Your task to perform on an android device: Open Google Chrome and click the shortcut for Amazon.com Image 0: 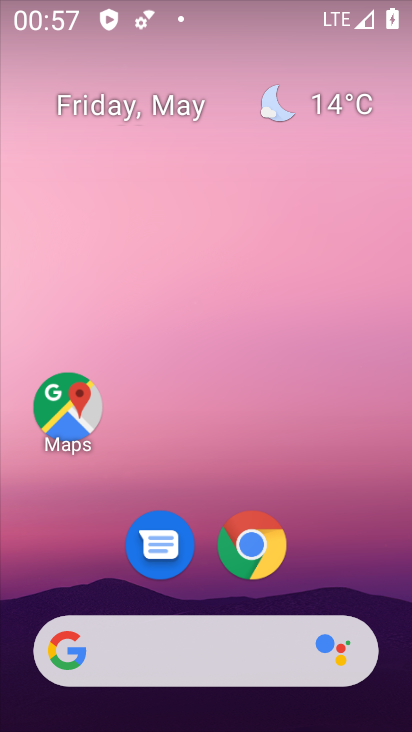
Step 0: click (251, 549)
Your task to perform on an android device: Open Google Chrome and click the shortcut for Amazon.com Image 1: 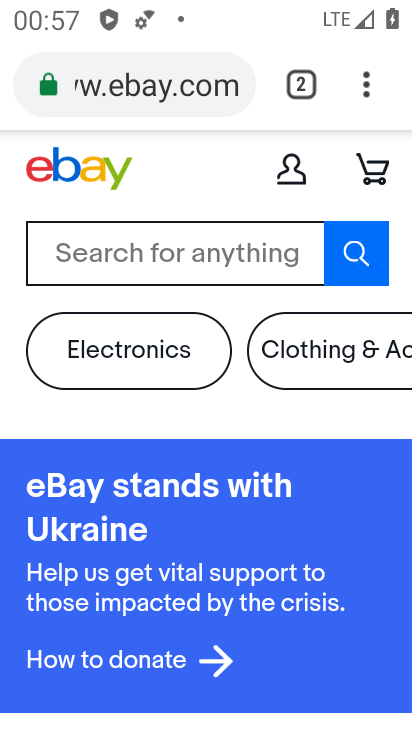
Step 1: press back button
Your task to perform on an android device: Open Google Chrome and click the shortcut for Amazon.com Image 2: 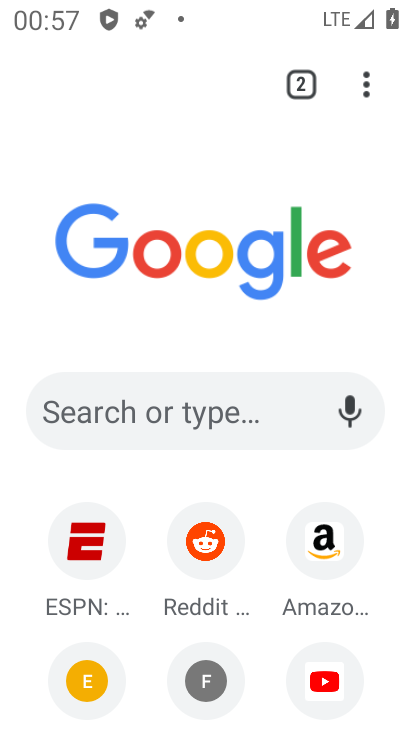
Step 2: click (347, 560)
Your task to perform on an android device: Open Google Chrome and click the shortcut for Amazon.com Image 3: 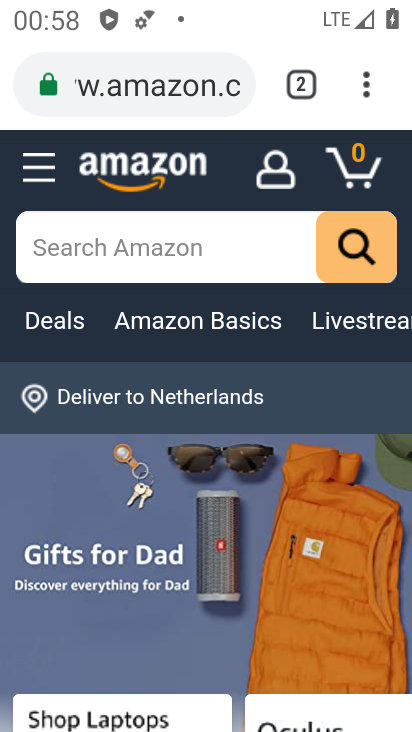
Step 3: task complete